Your task to perform on an android device: change the clock display to show seconds Image 0: 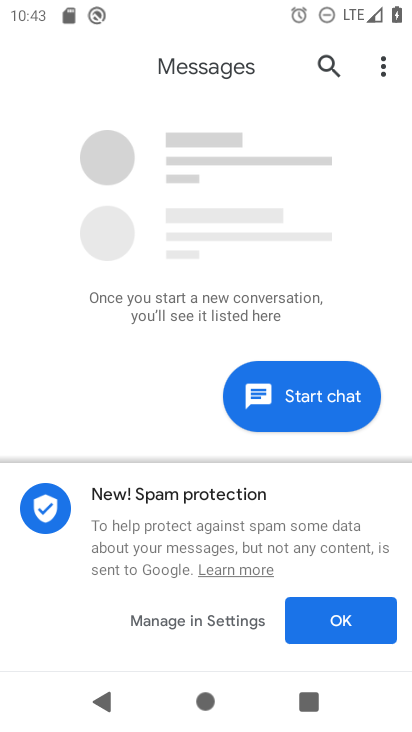
Step 0: press home button
Your task to perform on an android device: change the clock display to show seconds Image 1: 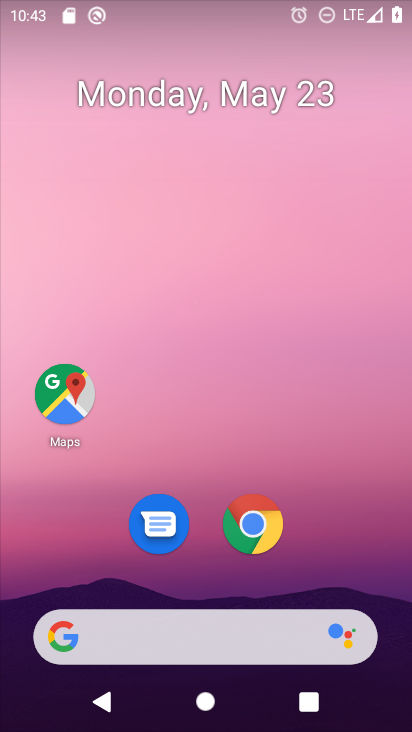
Step 1: drag from (244, 451) to (228, 21)
Your task to perform on an android device: change the clock display to show seconds Image 2: 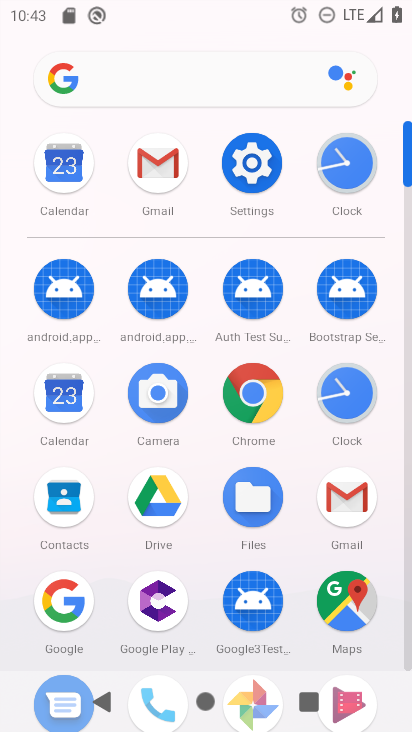
Step 2: click (339, 165)
Your task to perform on an android device: change the clock display to show seconds Image 3: 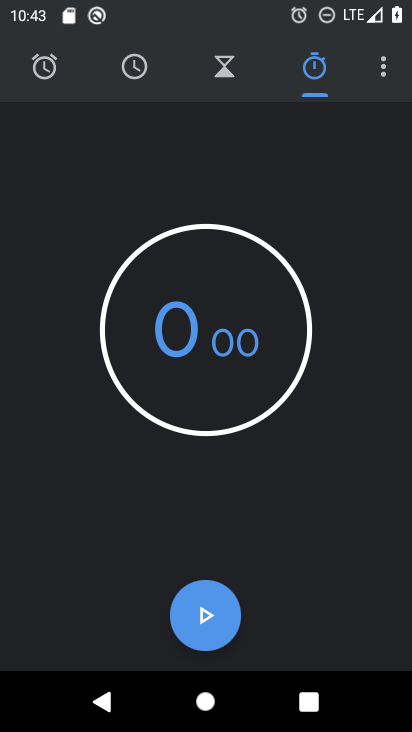
Step 3: click (378, 76)
Your task to perform on an android device: change the clock display to show seconds Image 4: 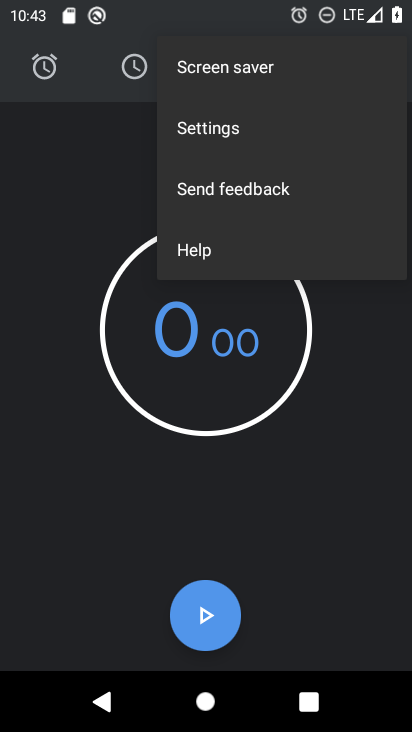
Step 4: click (281, 123)
Your task to perform on an android device: change the clock display to show seconds Image 5: 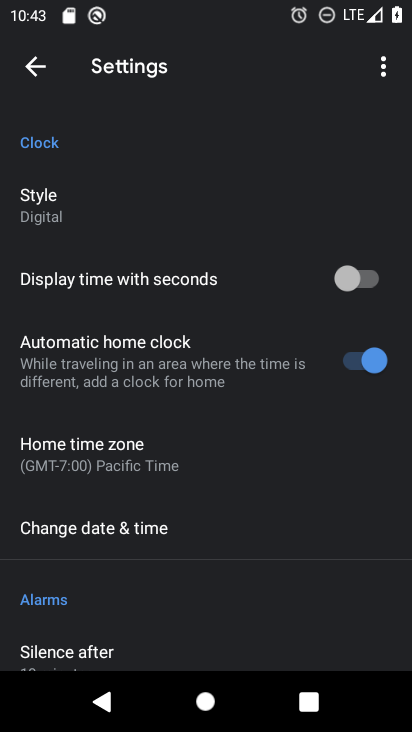
Step 5: click (363, 273)
Your task to perform on an android device: change the clock display to show seconds Image 6: 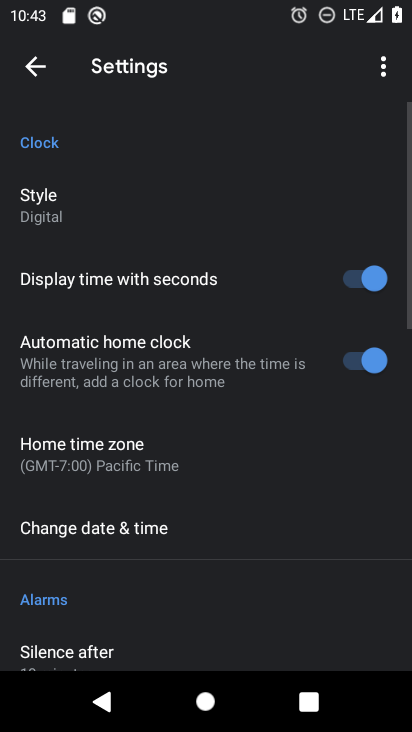
Step 6: task complete